Your task to perform on an android device: When is my next meeting? Image 0: 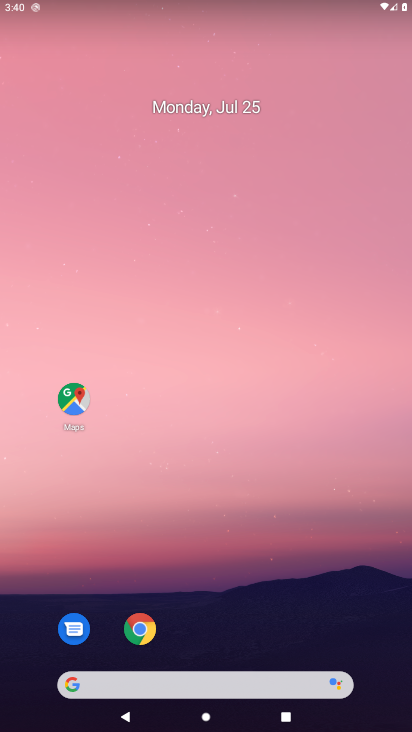
Step 0: drag from (32, 683) to (341, 5)
Your task to perform on an android device: When is my next meeting? Image 1: 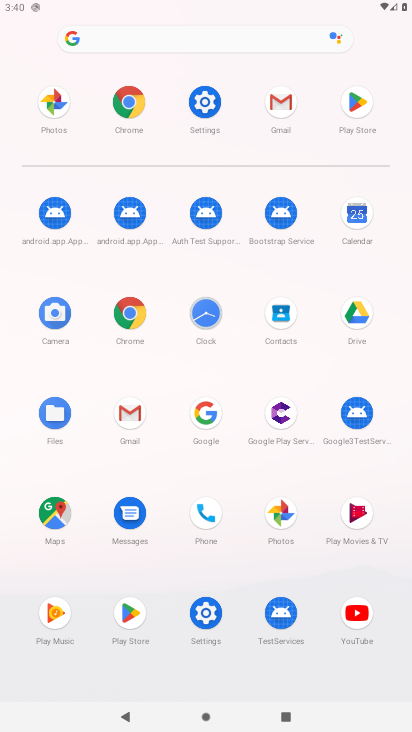
Step 1: click (400, 213)
Your task to perform on an android device: When is my next meeting? Image 2: 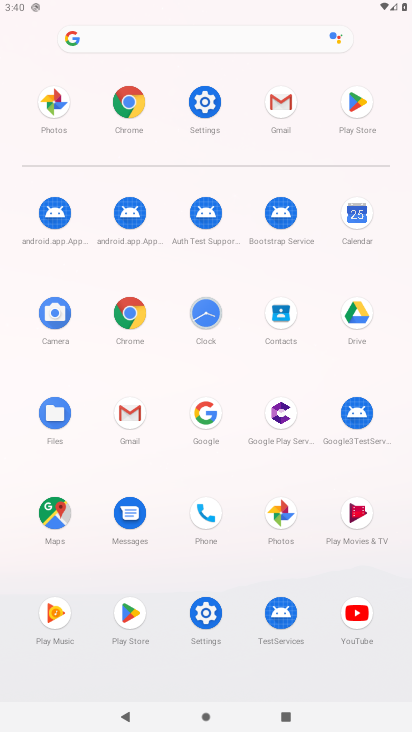
Step 2: click (374, 210)
Your task to perform on an android device: When is my next meeting? Image 3: 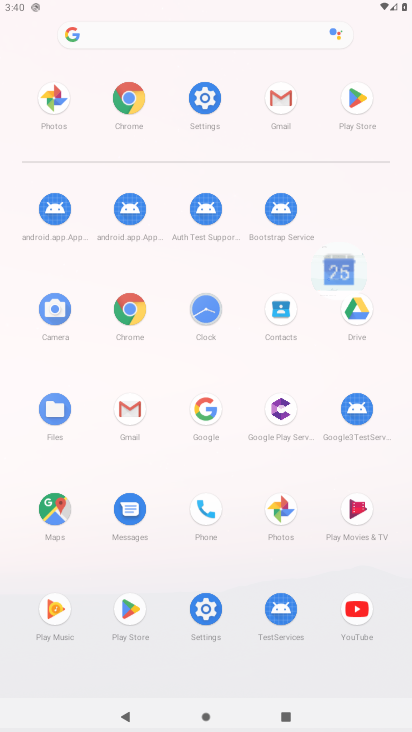
Step 3: click (355, 225)
Your task to perform on an android device: When is my next meeting? Image 4: 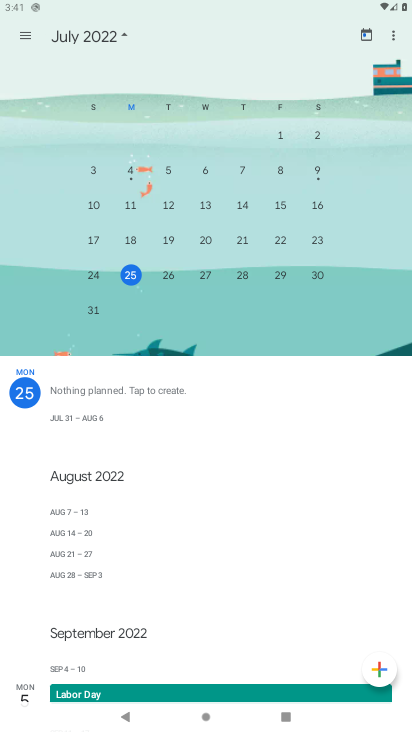
Step 4: task complete